Your task to perform on an android device: turn off translation in the chrome app Image 0: 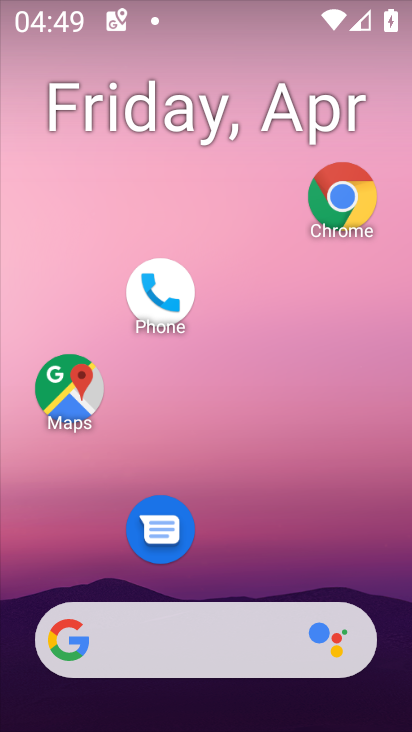
Step 0: click (342, 185)
Your task to perform on an android device: turn off translation in the chrome app Image 1: 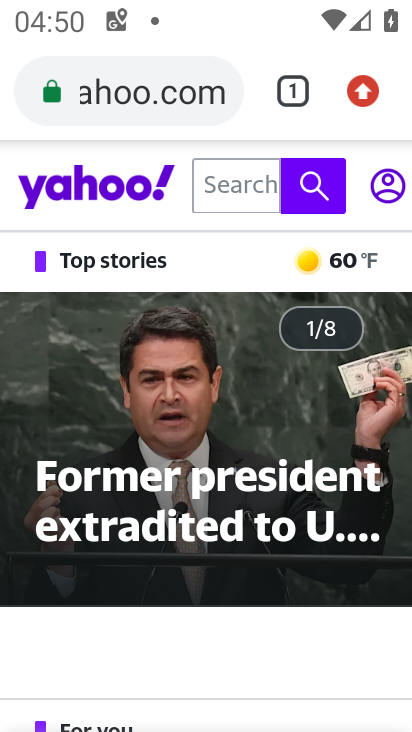
Step 1: click (359, 86)
Your task to perform on an android device: turn off translation in the chrome app Image 2: 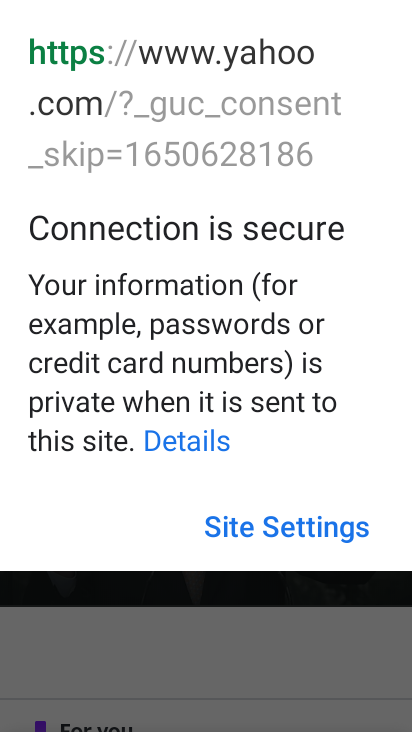
Step 2: click (238, 630)
Your task to perform on an android device: turn off translation in the chrome app Image 3: 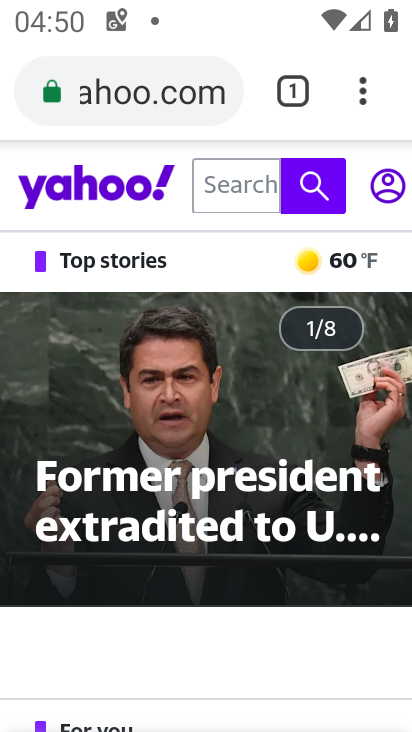
Step 3: click (360, 83)
Your task to perform on an android device: turn off translation in the chrome app Image 4: 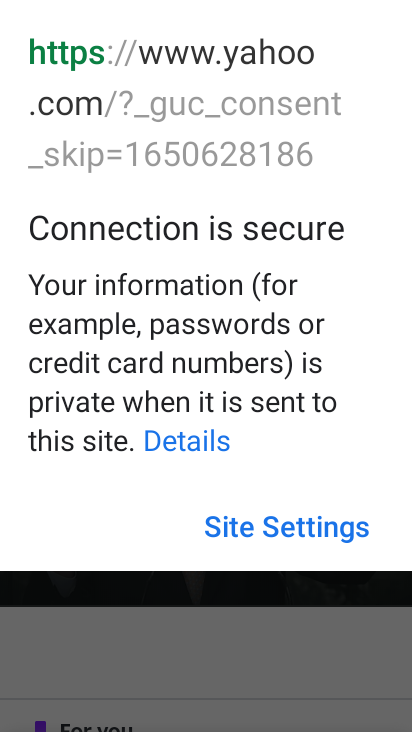
Step 4: click (154, 639)
Your task to perform on an android device: turn off translation in the chrome app Image 5: 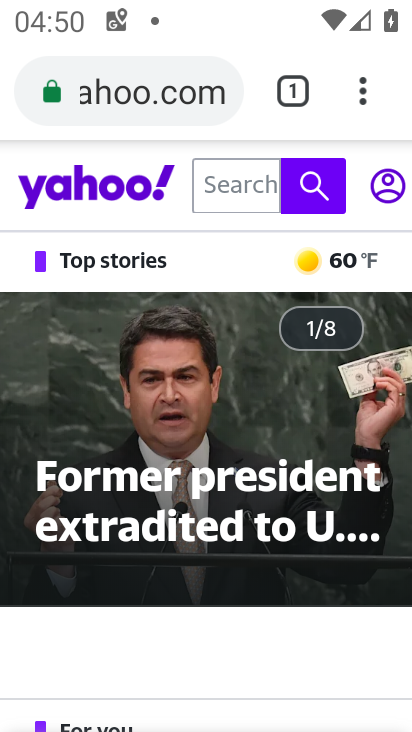
Step 5: click (292, 83)
Your task to perform on an android device: turn off translation in the chrome app Image 6: 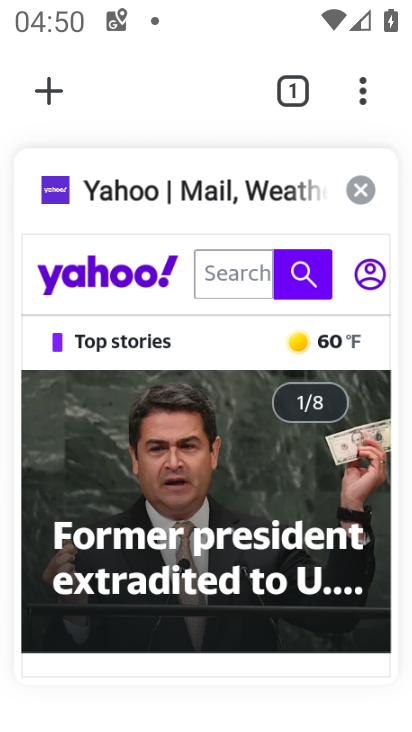
Step 6: click (354, 190)
Your task to perform on an android device: turn off translation in the chrome app Image 7: 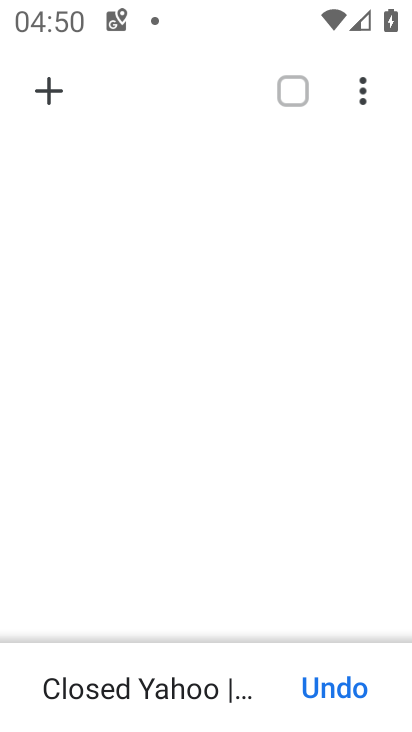
Step 7: click (51, 82)
Your task to perform on an android device: turn off translation in the chrome app Image 8: 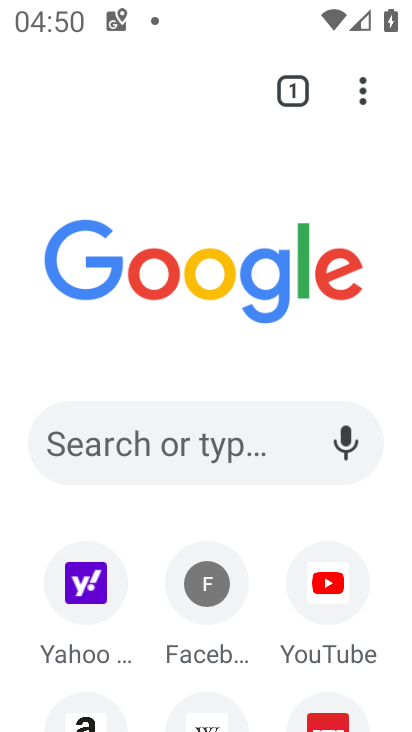
Step 8: click (359, 95)
Your task to perform on an android device: turn off translation in the chrome app Image 9: 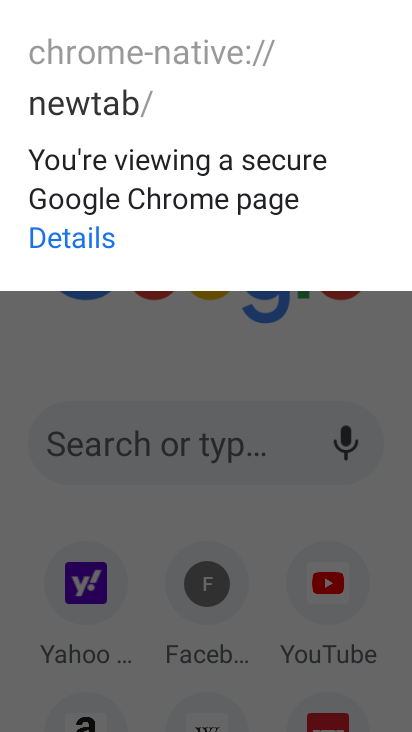
Step 9: click (334, 347)
Your task to perform on an android device: turn off translation in the chrome app Image 10: 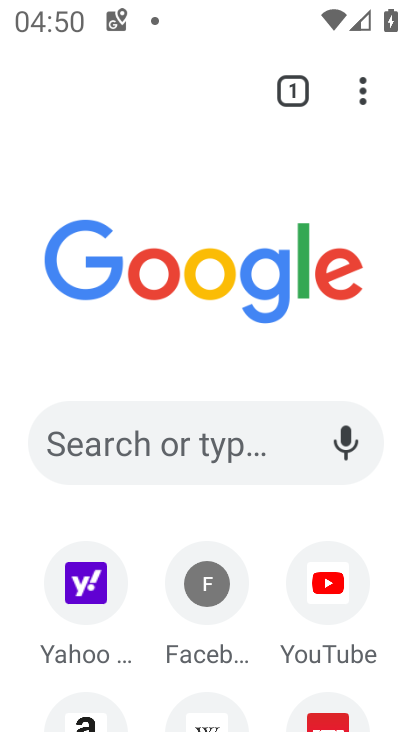
Step 10: click (362, 94)
Your task to perform on an android device: turn off translation in the chrome app Image 11: 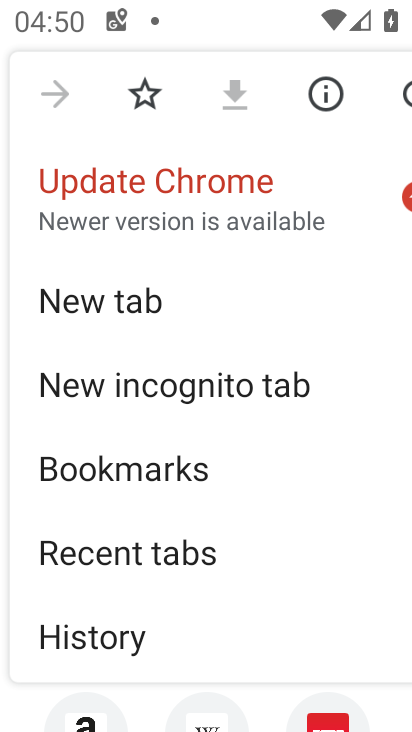
Step 11: drag from (198, 633) to (242, 87)
Your task to perform on an android device: turn off translation in the chrome app Image 12: 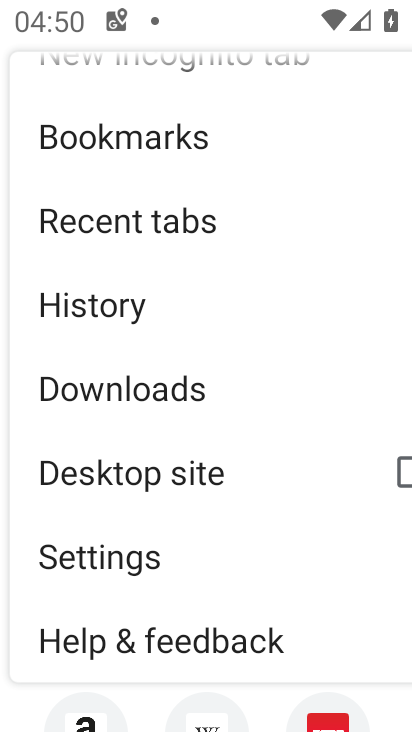
Step 12: click (176, 559)
Your task to perform on an android device: turn off translation in the chrome app Image 13: 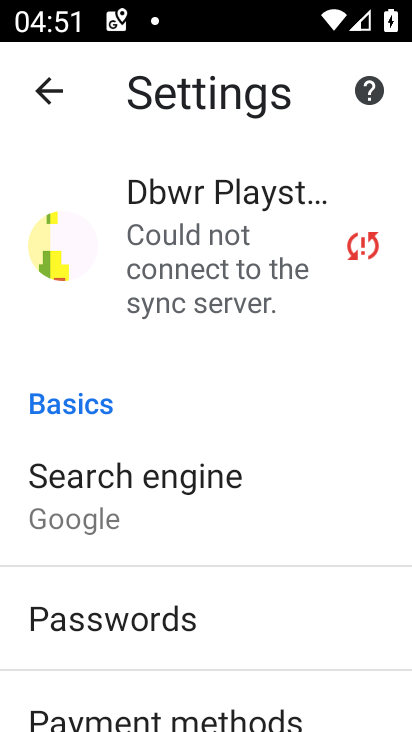
Step 13: drag from (244, 647) to (320, 113)
Your task to perform on an android device: turn off translation in the chrome app Image 14: 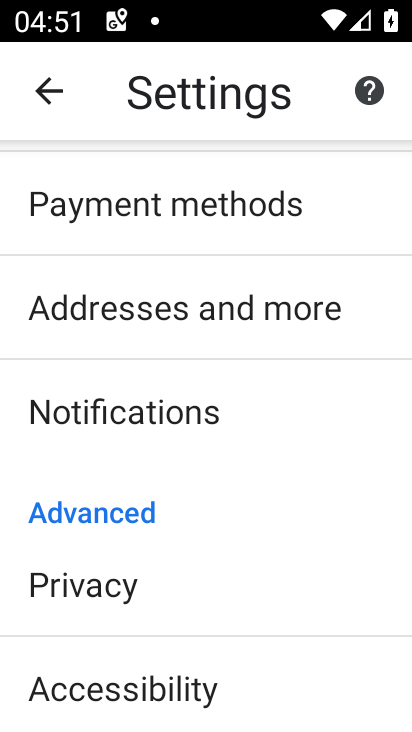
Step 14: drag from (207, 535) to (252, 47)
Your task to perform on an android device: turn off translation in the chrome app Image 15: 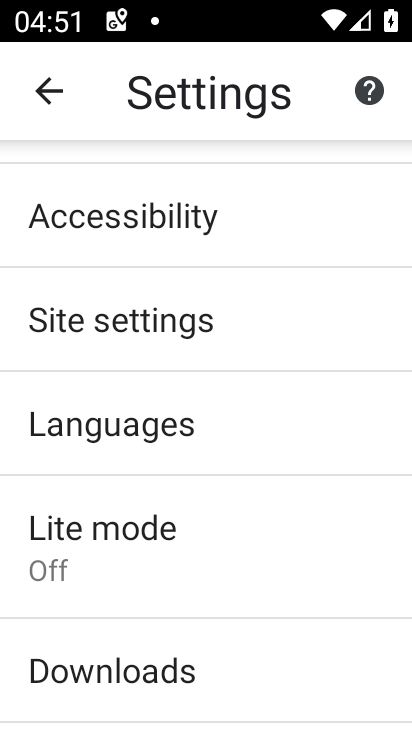
Step 15: click (179, 411)
Your task to perform on an android device: turn off translation in the chrome app Image 16: 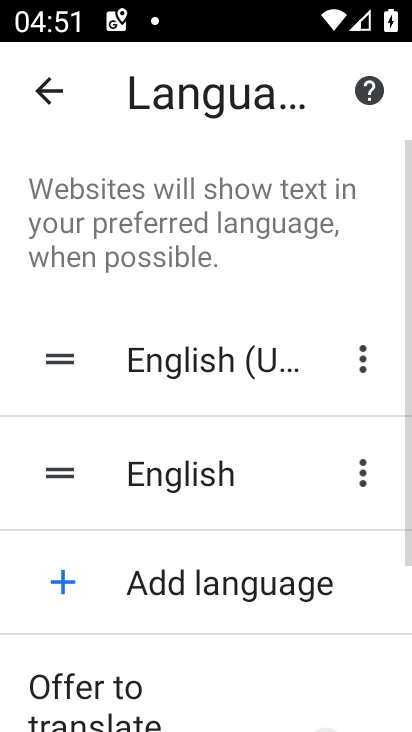
Step 16: task complete